Your task to perform on an android device: Open Google Chrome Image 0: 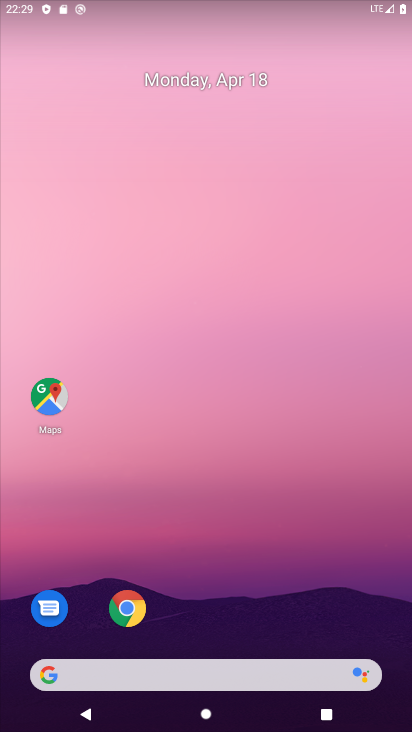
Step 0: click (123, 611)
Your task to perform on an android device: Open Google Chrome Image 1: 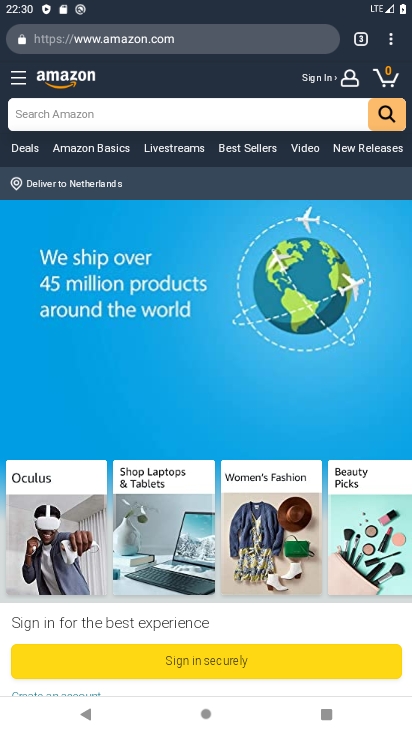
Step 1: task complete